Your task to perform on an android device: Show me popular games on the Play Store Image 0: 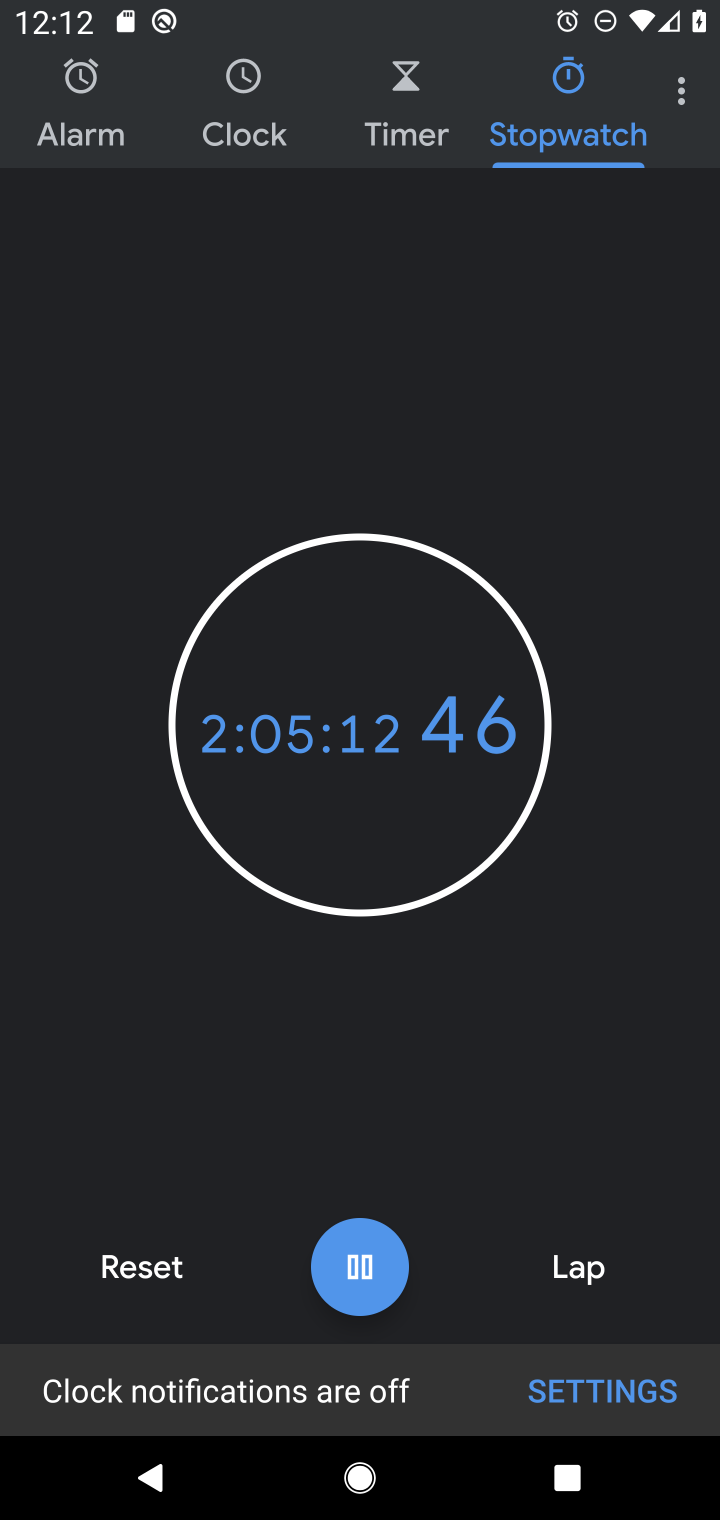
Step 0: press home button
Your task to perform on an android device: Show me popular games on the Play Store Image 1: 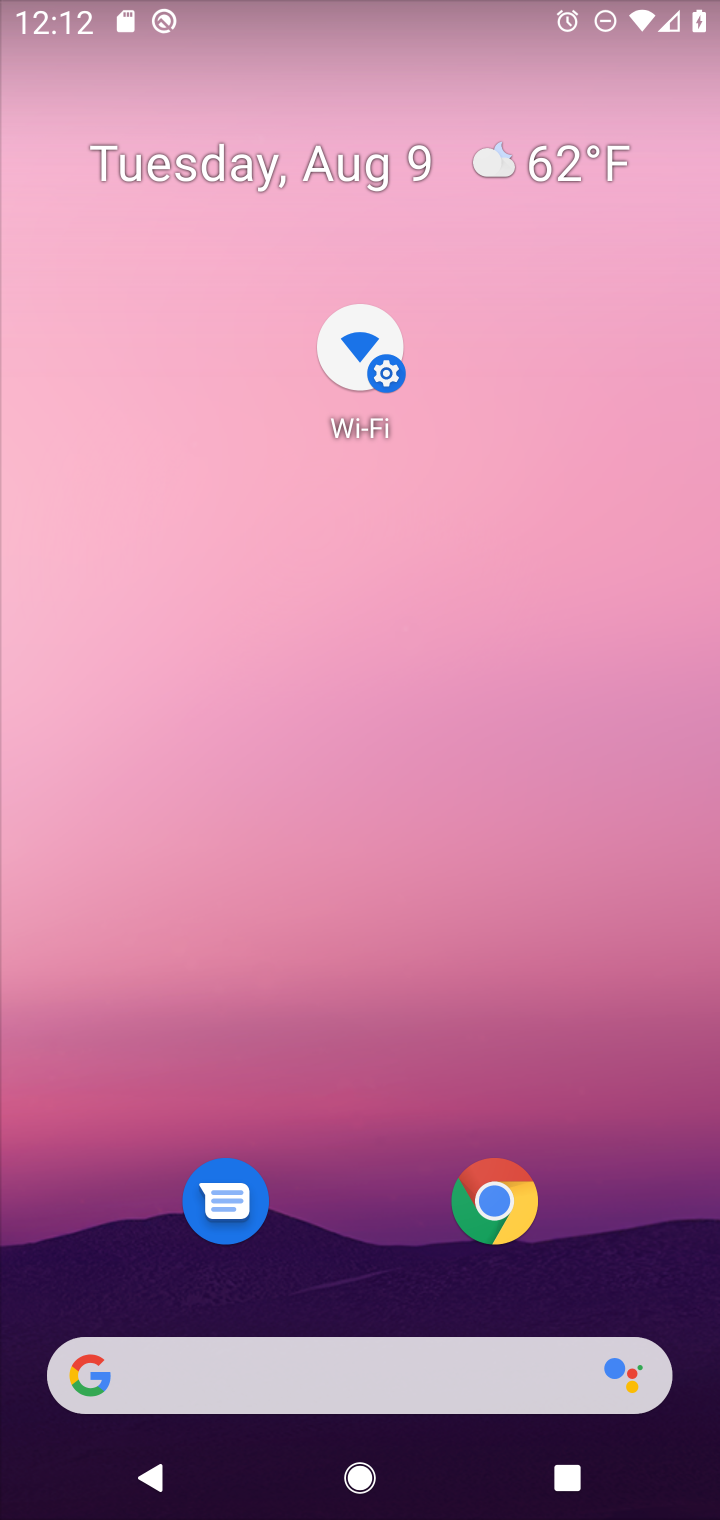
Step 1: drag from (356, 1041) to (514, 226)
Your task to perform on an android device: Show me popular games on the Play Store Image 2: 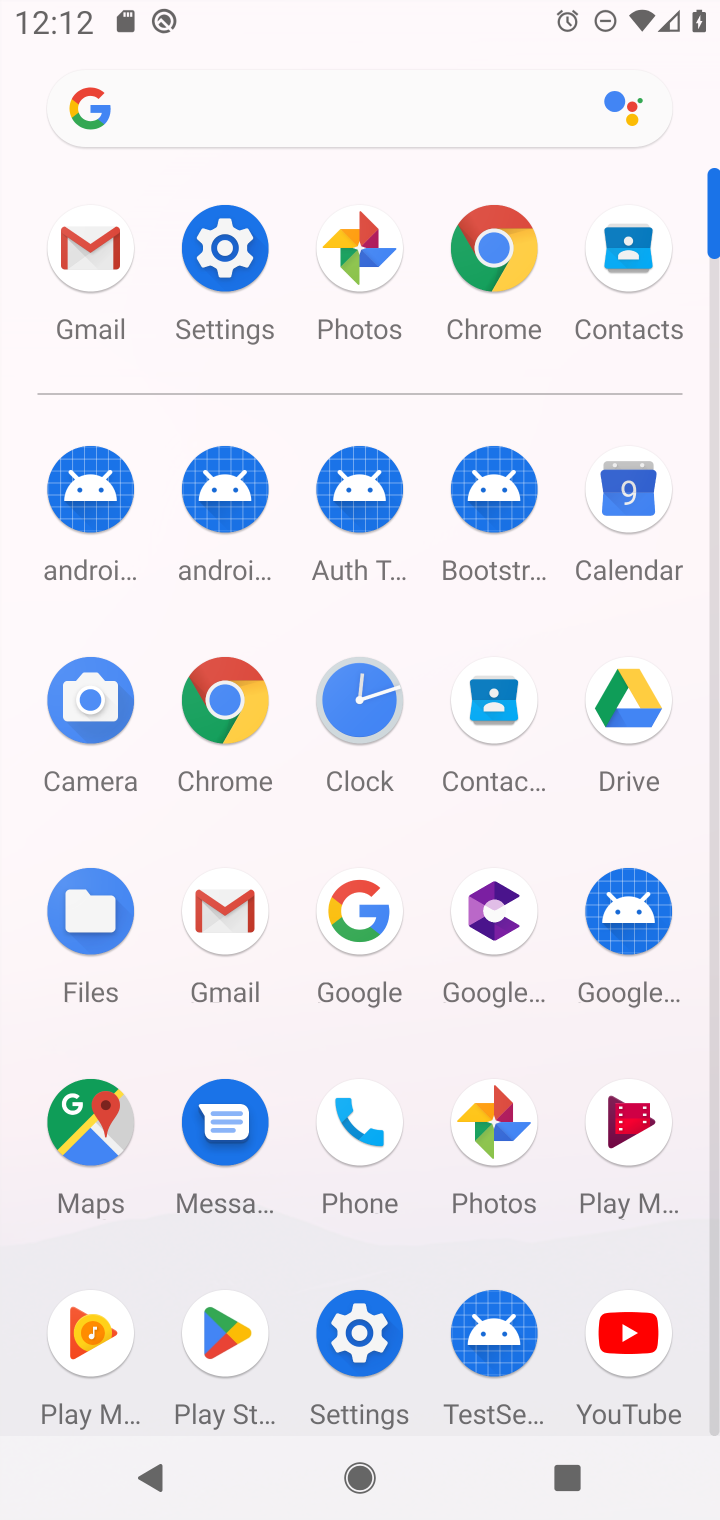
Step 2: click (212, 1339)
Your task to perform on an android device: Show me popular games on the Play Store Image 3: 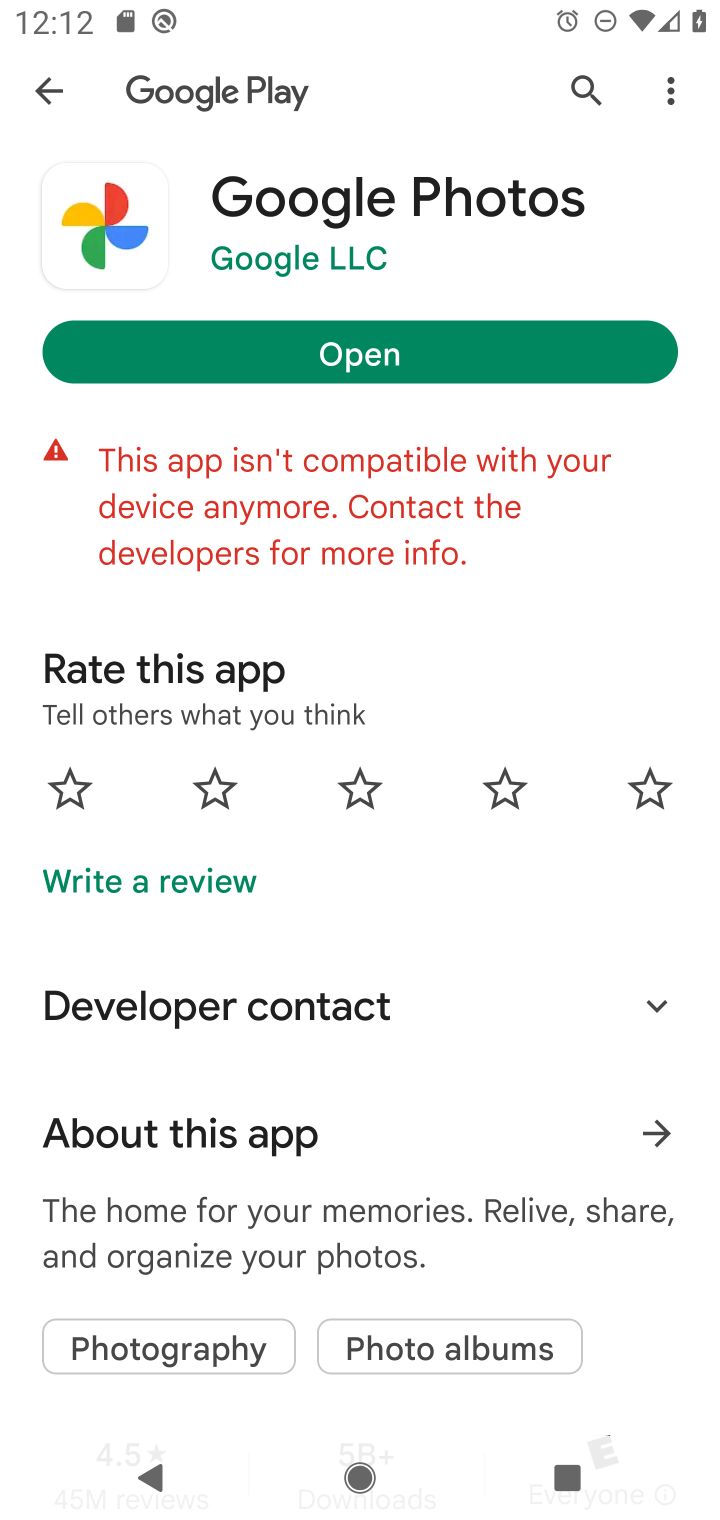
Step 3: press back button
Your task to perform on an android device: Show me popular games on the Play Store Image 4: 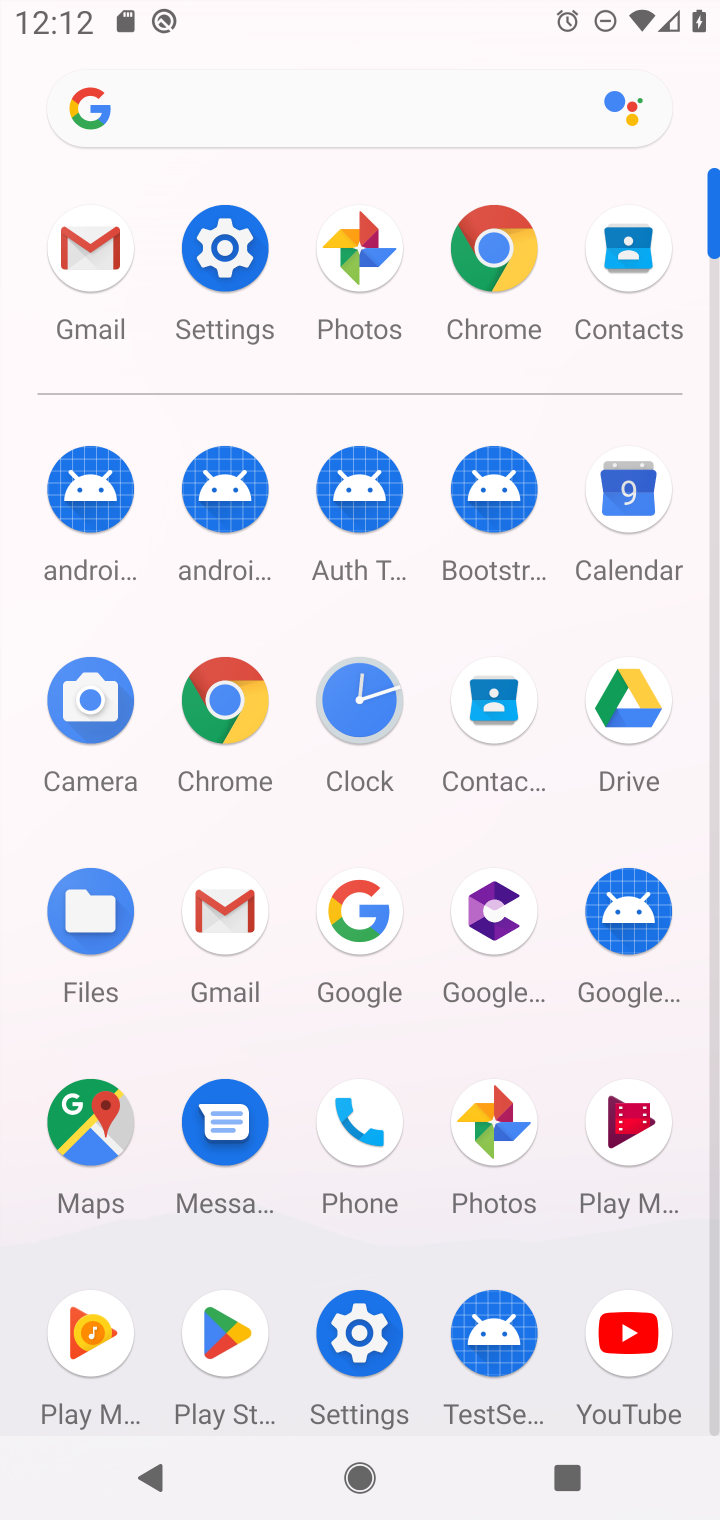
Step 4: click (215, 1344)
Your task to perform on an android device: Show me popular games on the Play Store Image 5: 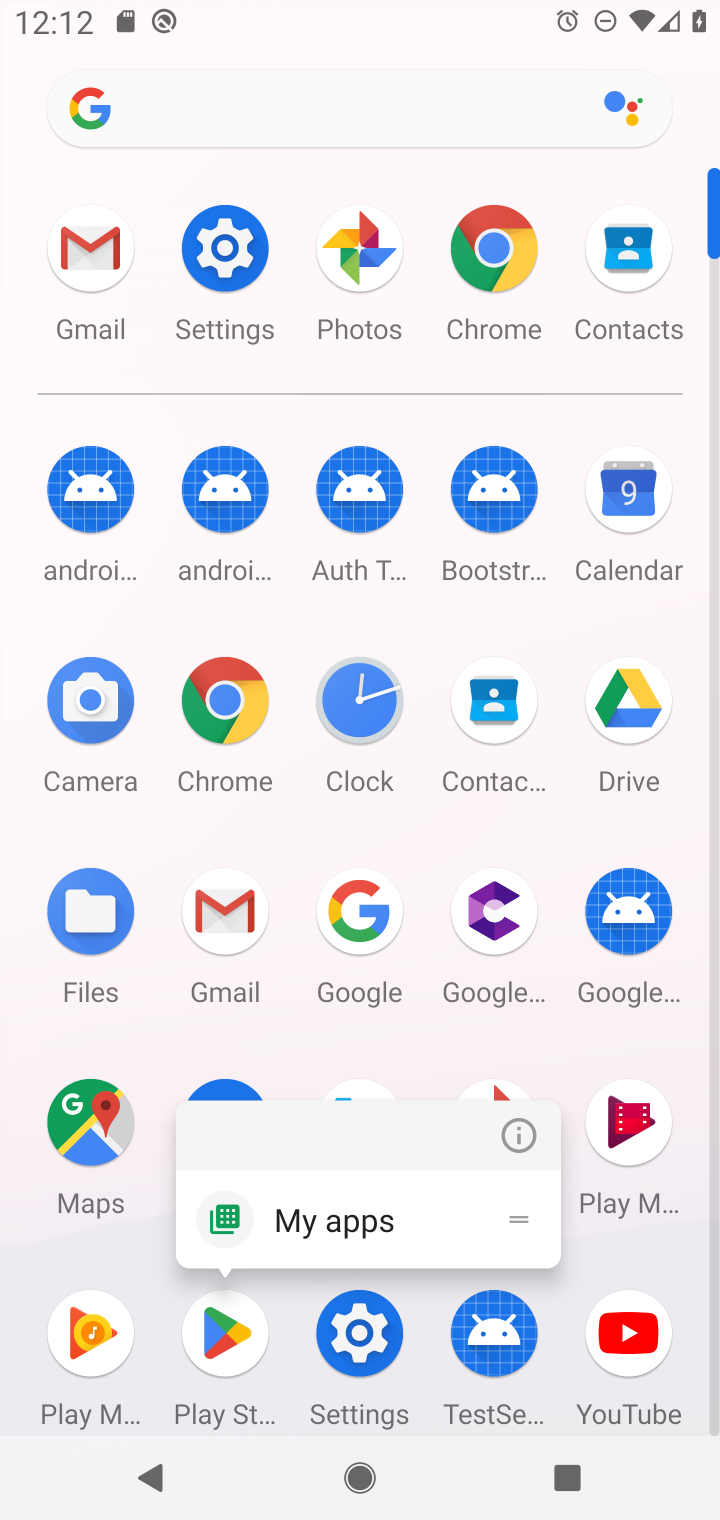
Step 5: click (215, 1344)
Your task to perform on an android device: Show me popular games on the Play Store Image 6: 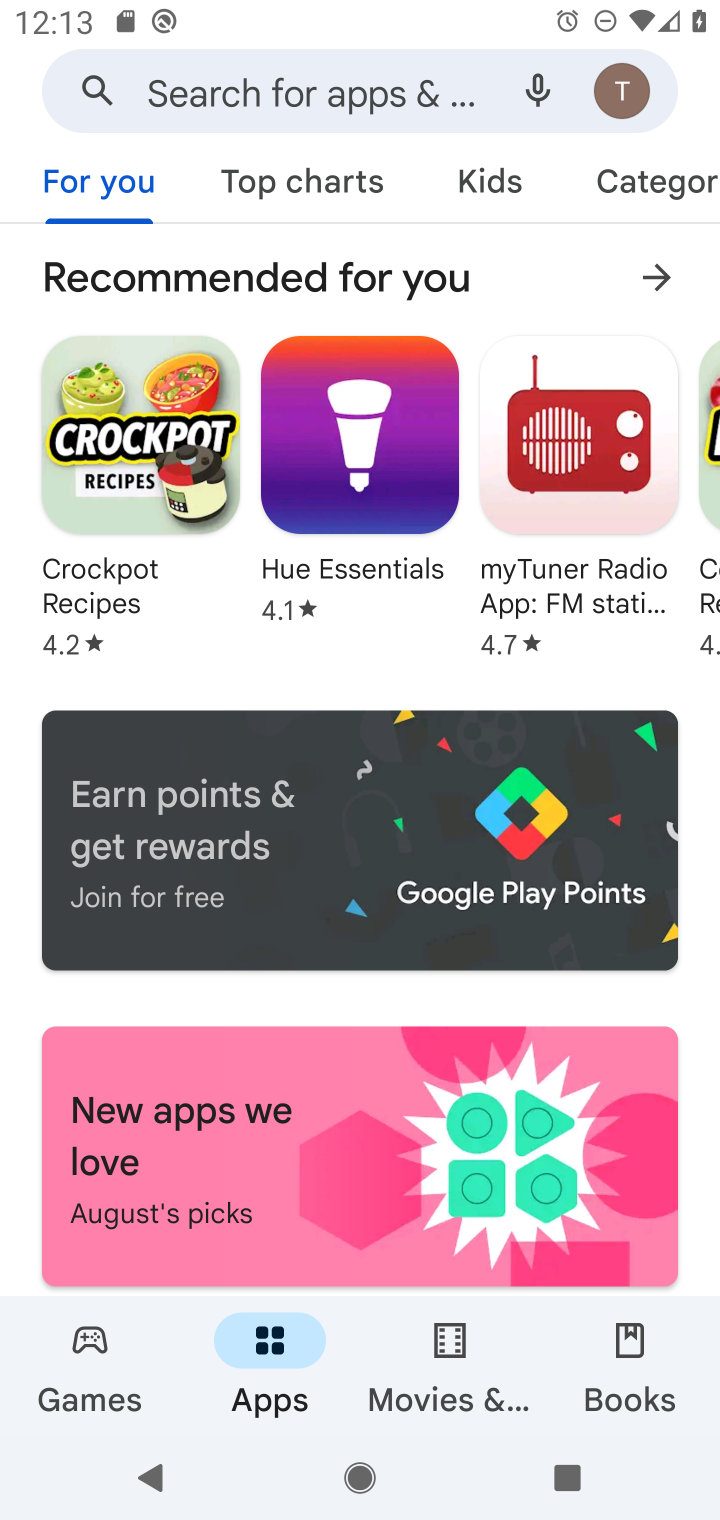
Step 6: click (71, 1363)
Your task to perform on an android device: Show me popular games on the Play Store Image 7: 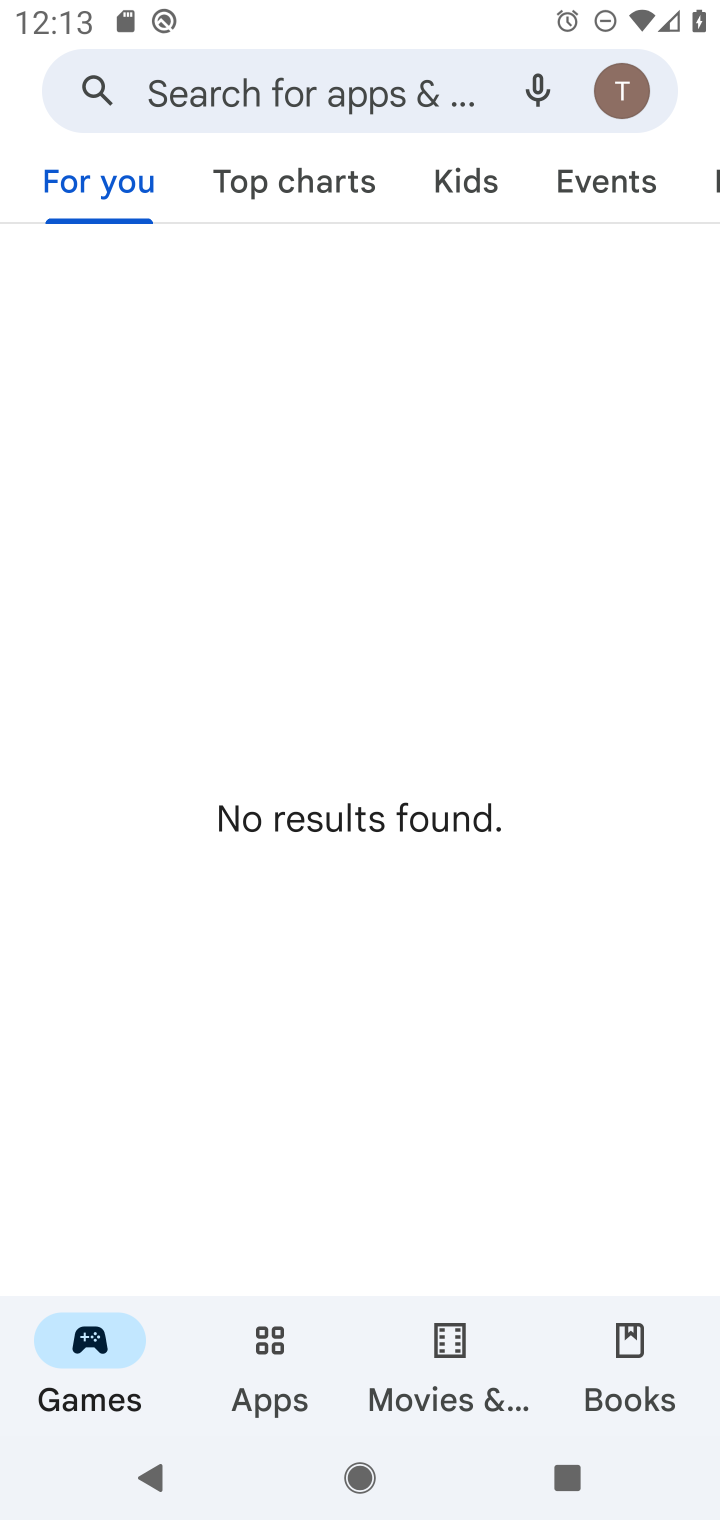
Step 7: task complete